Your task to perform on an android device: toggle notification dots Image 0: 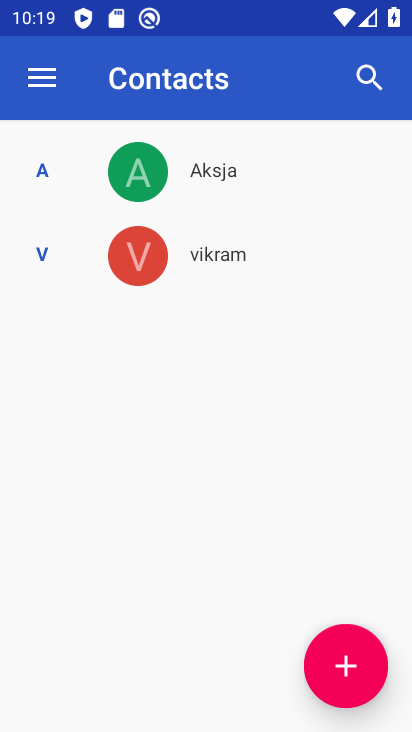
Step 0: press home button
Your task to perform on an android device: toggle notification dots Image 1: 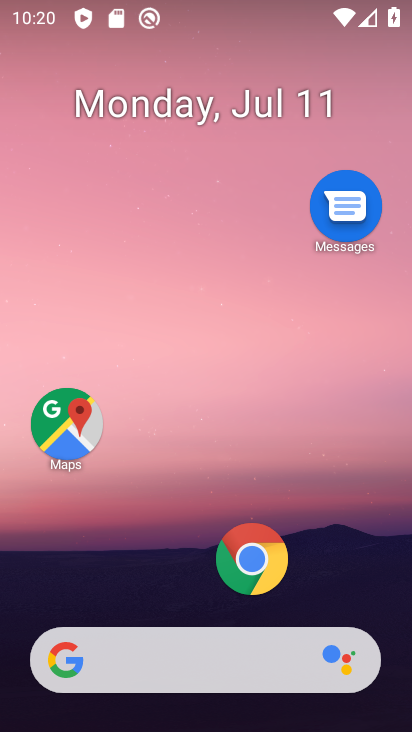
Step 1: drag from (386, 562) to (390, 26)
Your task to perform on an android device: toggle notification dots Image 2: 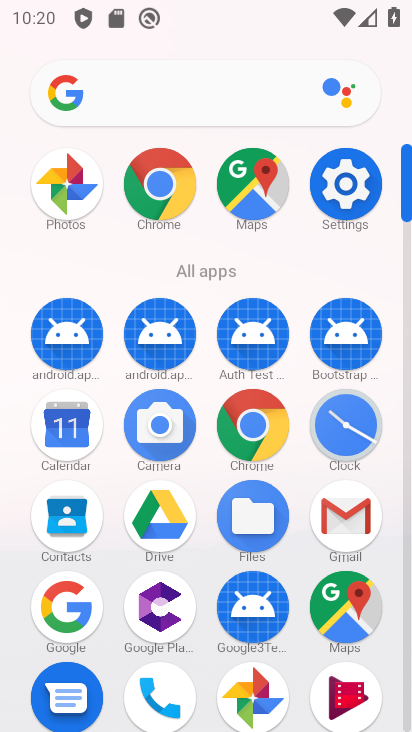
Step 2: click (338, 197)
Your task to perform on an android device: toggle notification dots Image 3: 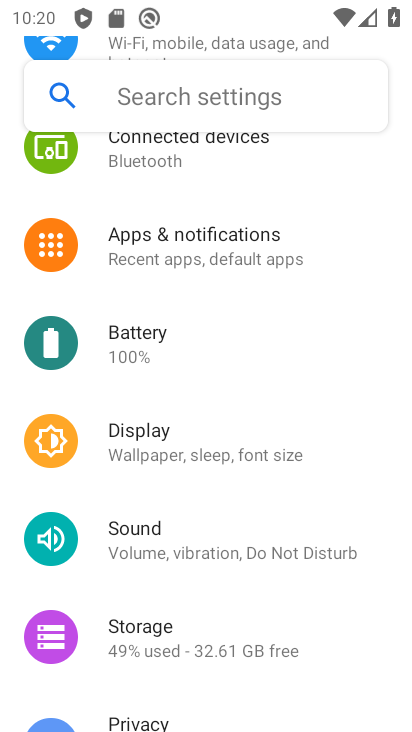
Step 3: drag from (342, 219) to (345, 305)
Your task to perform on an android device: toggle notification dots Image 4: 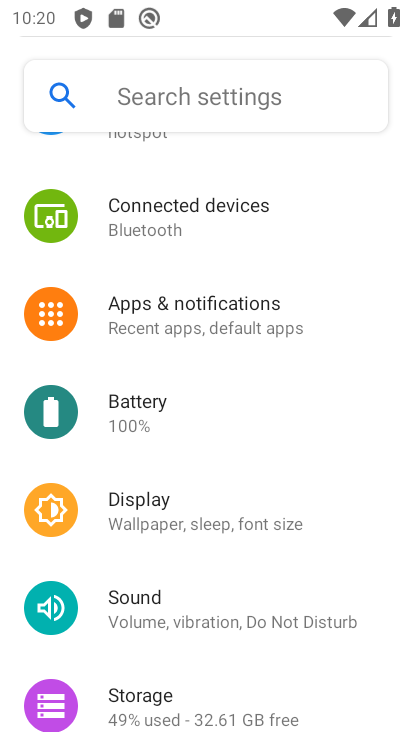
Step 4: drag from (365, 206) to (368, 316)
Your task to perform on an android device: toggle notification dots Image 5: 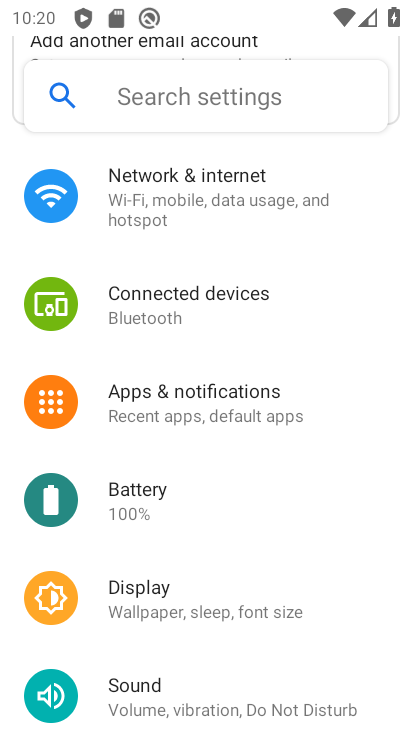
Step 5: drag from (362, 253) to (357, 402)
Your task to perform on an android device: toggle notification dots Image 6: 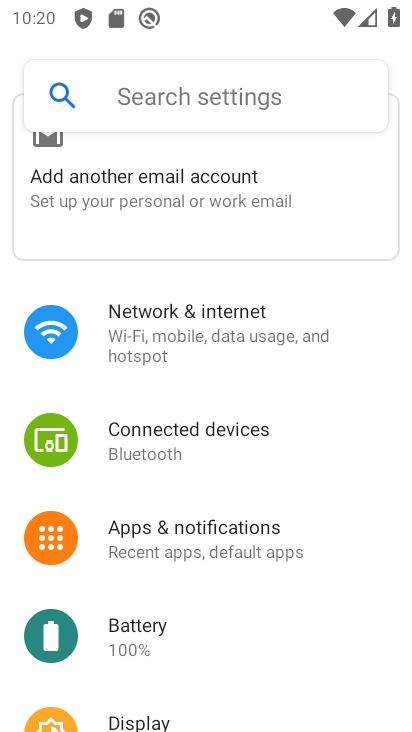
Step 6: click (293, 526)
Your task to perform on an android device: toggle notification dots Image 7: 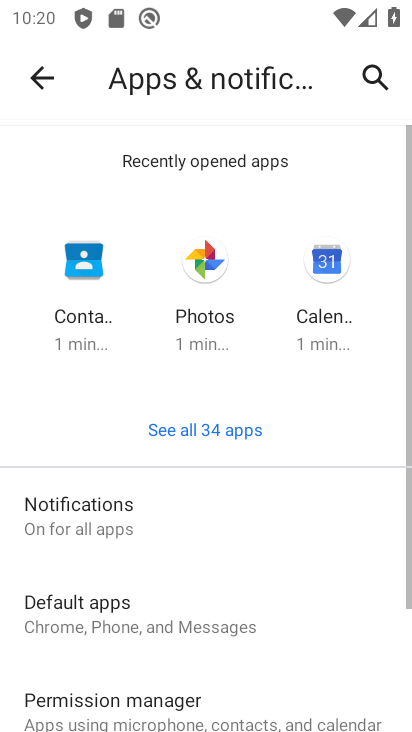
Step 7: drag from (294, 526) to (301, 417)
Your task to perform on an android device: toggle notification dots Image 8: 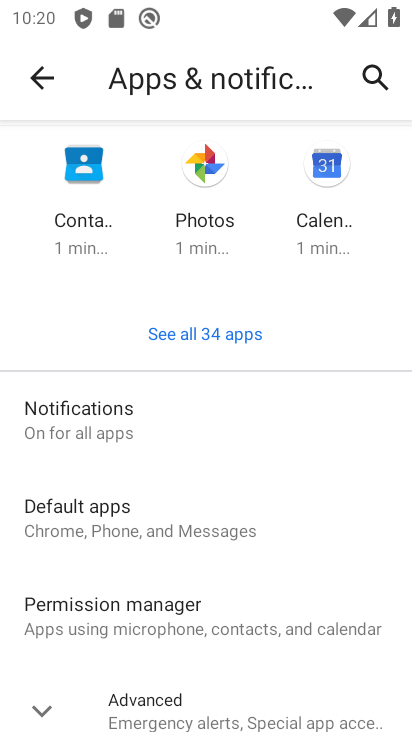
Step 8: drag from (293, 532) to (299, 415)
Your task to perform on an android device: toggle notification dots Image 9: 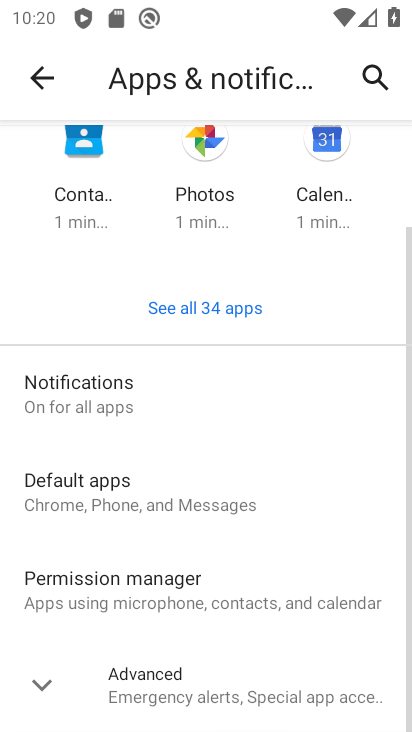
Step 9: click (215, 387)
Your task to perform on an android device: toggle notification dots Image 10: 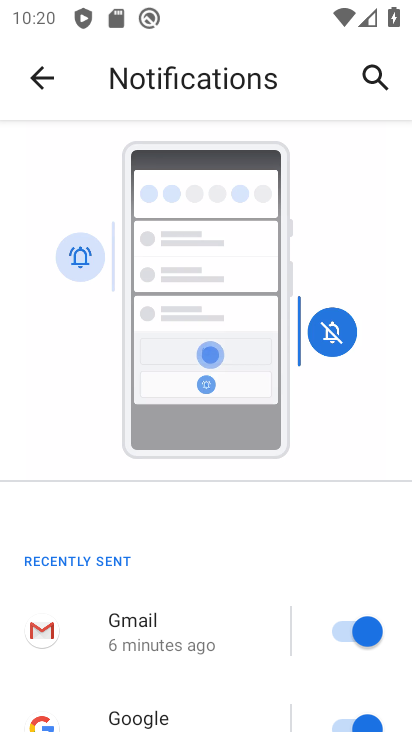
Step 10: drag from (220, 560) to (218, 366)
Your task to perform on an android device: toggle notification dots Image 11: 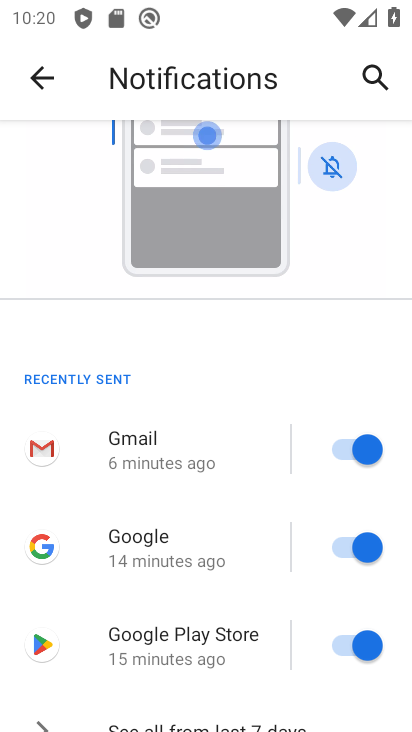
Step 11: drag from (236, 515) to (237, 377)
Your task to perform on an android device: toggle notification dots Image 12: 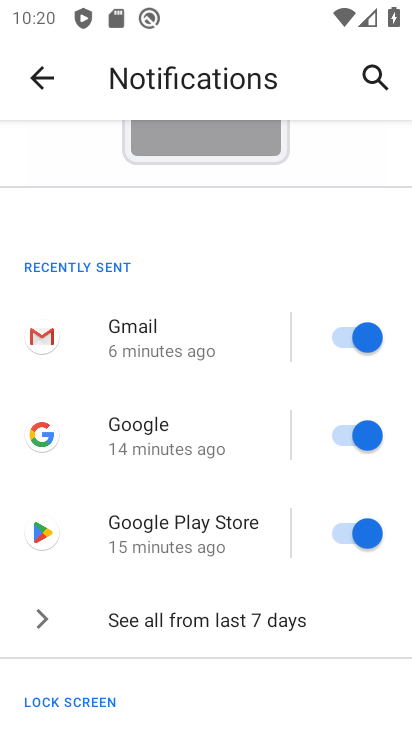
Step 12: drag from (273, 567) to (266, 350)
Your task to perform on an android device: toggle notification dots Image 13: 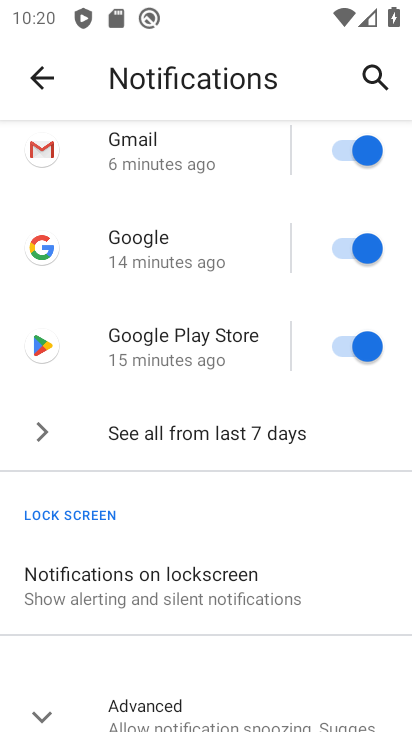
Step 13: drag from (318, 544) to (330, 374)
Your task to perform on an android device: toggle notification dots Image 14: 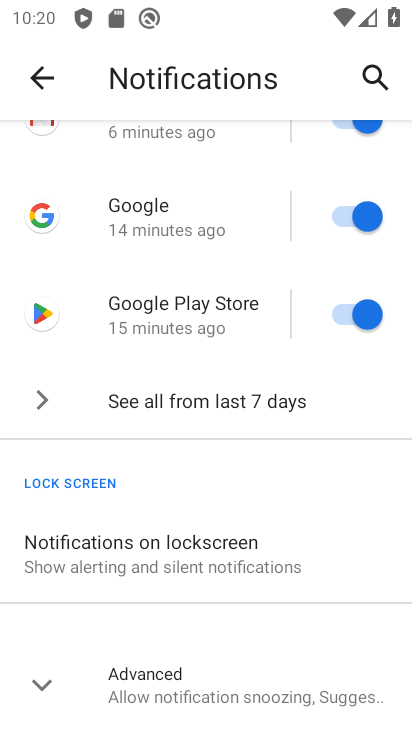
Step 14: click (311, 684)
Your task to perform on an android device: toggle notification dots Image 15: 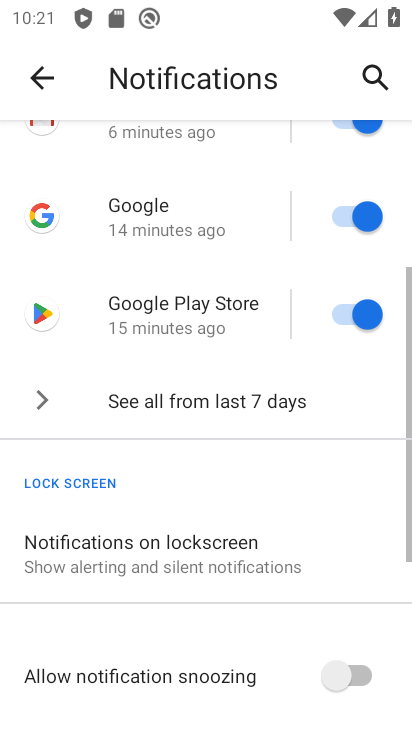
Step 15: drag from (292, 613) to (298, 447)
Your task to perform on an android device: toggle notification dots Image 16: 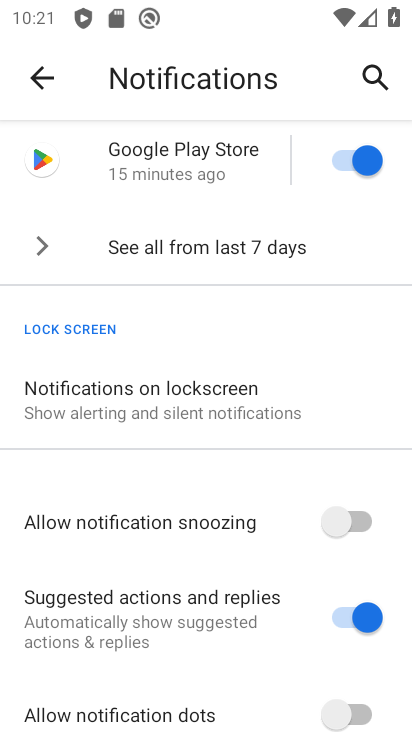
Step 16: drag from (282, 641) to (292, 482)
Your task to perform on an android device: toggle notification dots Image 17: 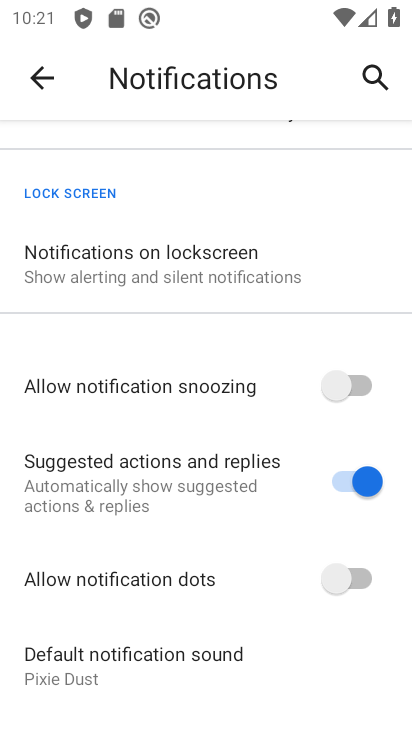
Step 17: click (340, 573)
Your task to perform on an android device: toggle notification dots Image 18: 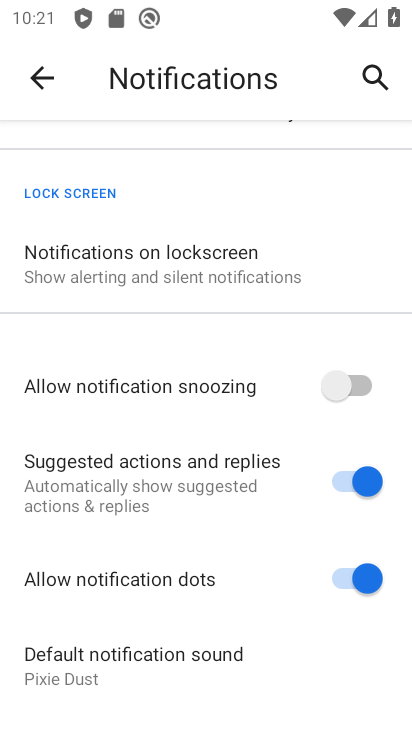
Step 18: task complete